Your task to perform on an android device: Do I have any events tomorrow? Image 0: 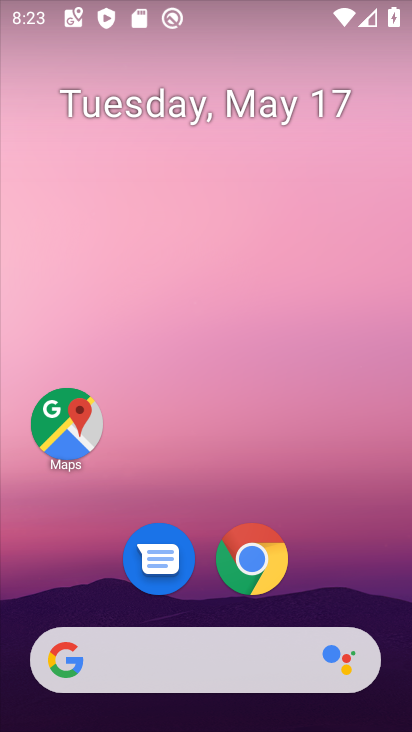
Step 0: drag from (177, 697) to (143, 263)
Your task to perform on an android device: Do I have any events tomorrow? Image 1: 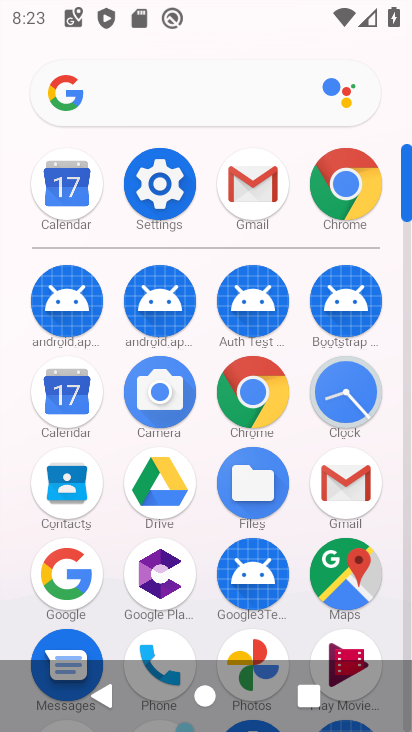
Step 1: click (55, 409)
Your task to perform on an android device: Do I have any events tomorrow? Image 2: 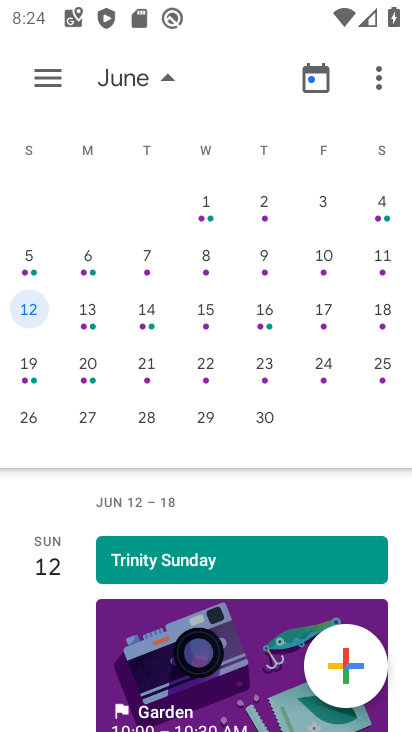
Step 2: drag from (153, 276) to (307, 317)
Your task to perform on an android device: Do I have any events tomorrow? Image 3: 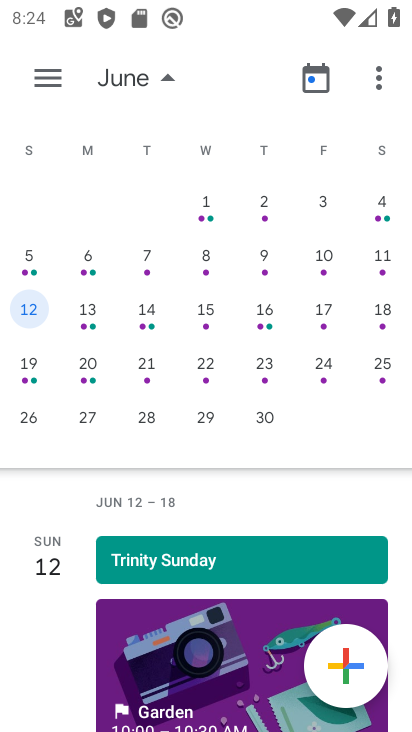
Step 3: drag from (67, 306) to (396, 220)
Your task to perform on an android device: Do I have any events tomorrow? Image 4: 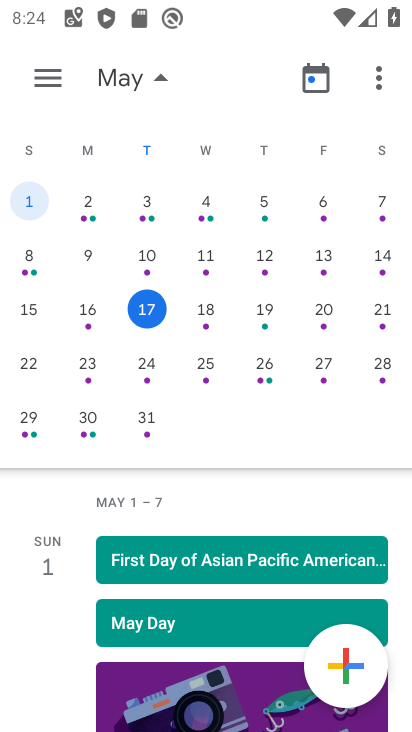
Step 4: click (213, 311)
Your task to perform on an android device: Do I have any events tomorrow? Image 5: 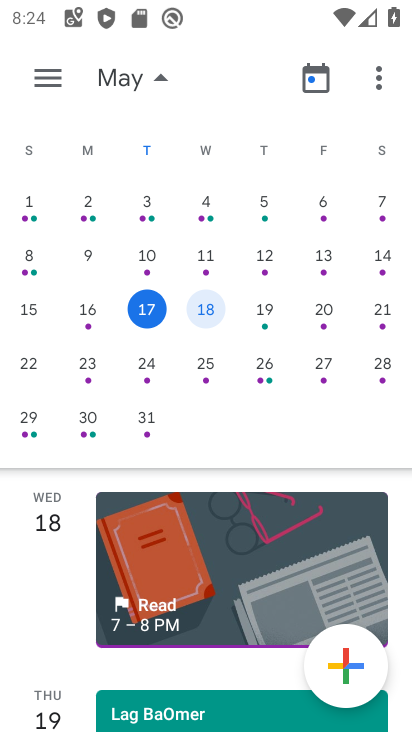
Step 5: task complete